Your task to perform on an android device: change alarm snooze length Image 0: 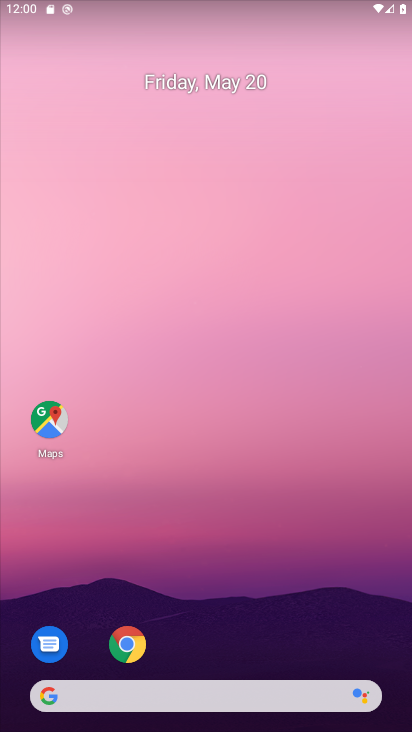
Step 0: drag from (232, 656) to (301, 319)
Your task to perform on an android device: change alarm snooze length Image 1: 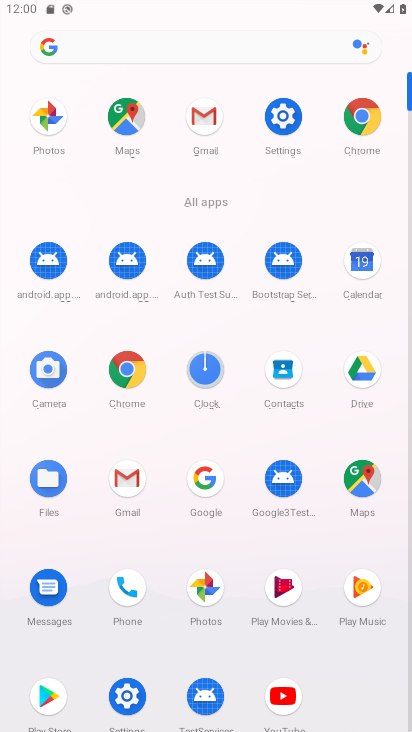
Step 1: click (288, 696)
Your task to perform on an android device: change alarm snooze length Image 2: 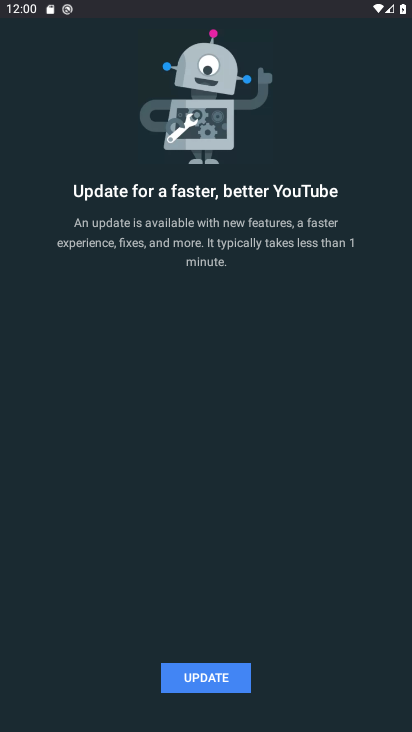
Step 2: press home button
Your task to perform on an android device: change alarm snooze length Image 3: 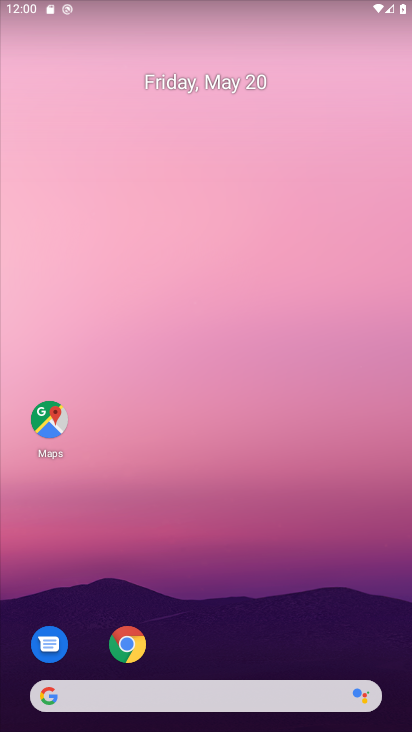
Step 3: drag from (164, 639) to (188, 351)
Your task to perform on an android device: change alarm snooze length Image 4: 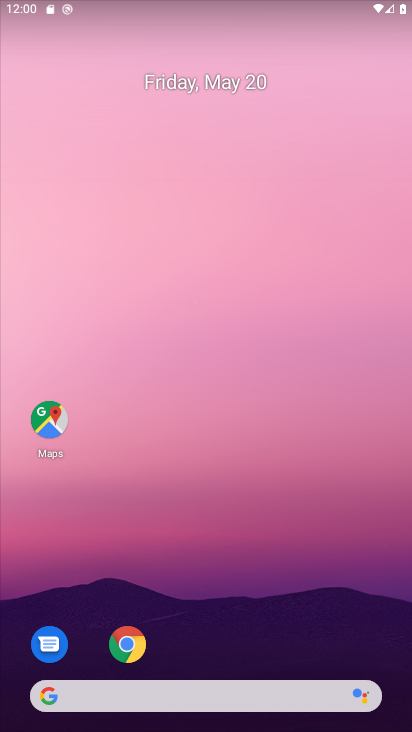
Step 4: drag from (259, 674) to (290, 244)
Your task to perform on an android device: change alarm snooze length Image 5: 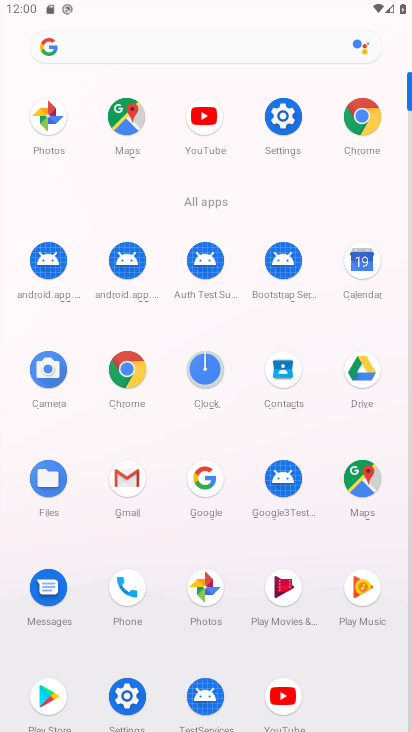
Step 5: click (211, 373)
Your task to perform on an android device: change alarm snooze length Image 6: 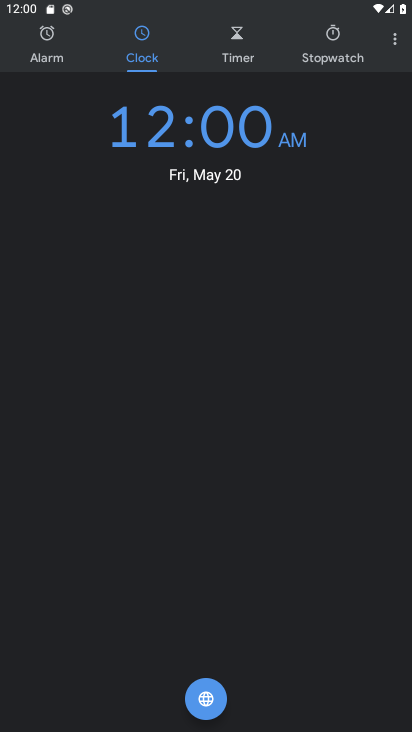
Step 6: click (396, 51)
Your task to perform on an android device: change alarm snooze length Image 7: 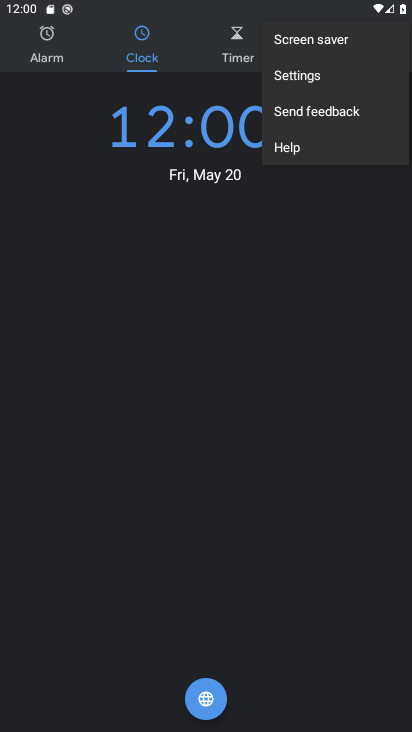
Step 7: click (306, 70)
Your task to perform on an android device: change alarm snooze length Image 8: 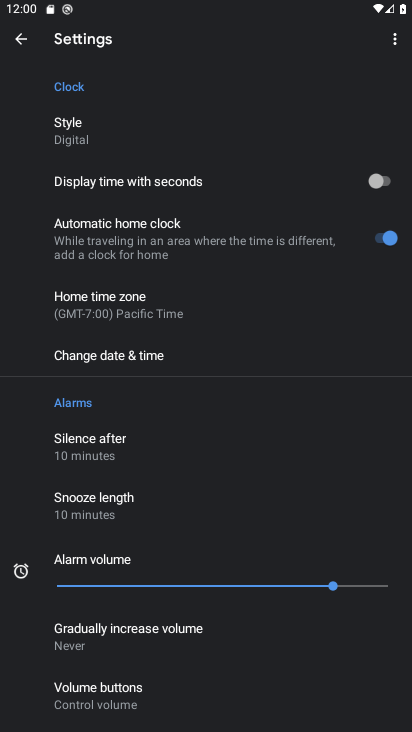
Step 8: click (114, 500)
Your task to perform on an android device: change alarm snooze length Image 9: 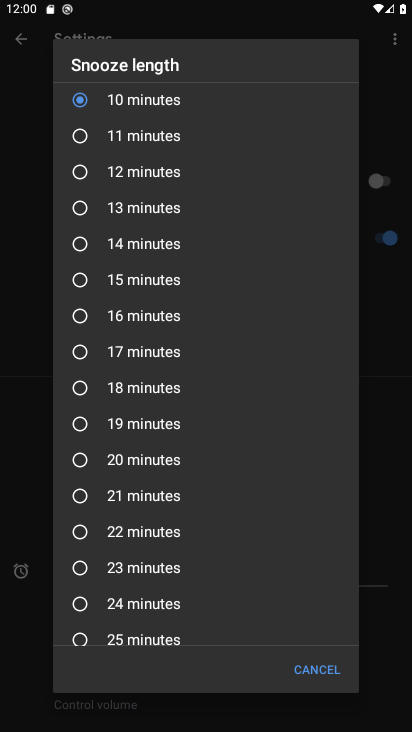
Step 9: click (151, 146)
Your task to perform on an android device: change alarm snooze length Image 10: 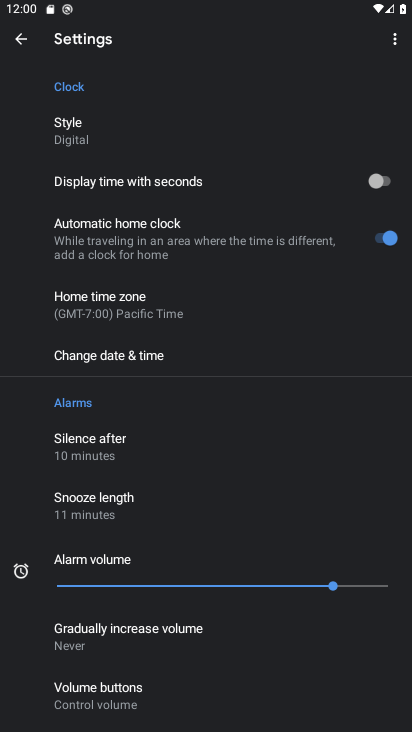
Step 10: click (109, 503)
Your task to perform on an android device: change alarm snooze length Image 11: 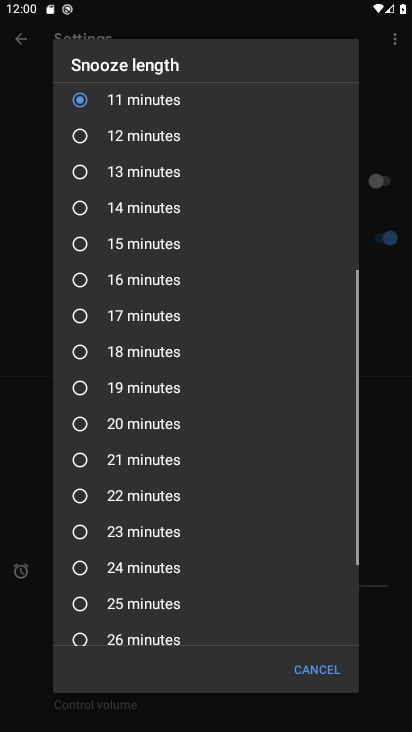
Step 11: click (123, 385)
Your task to perform on an android device: change alarm snooze length Image 12: 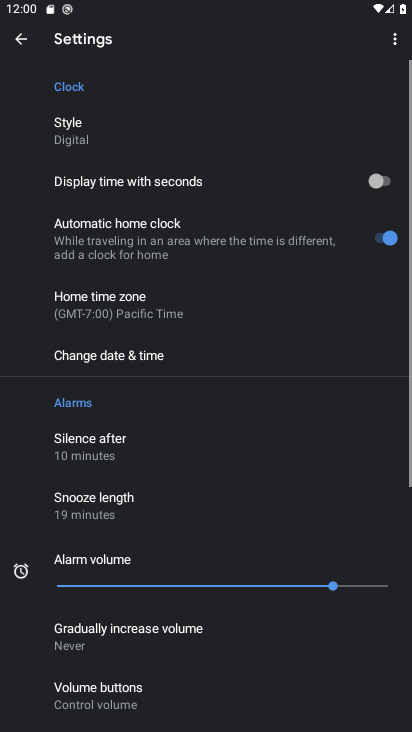
Step 12: task complete